Your task to perform on an android device: Open the phone app and click the voicemail tab. Image 0: 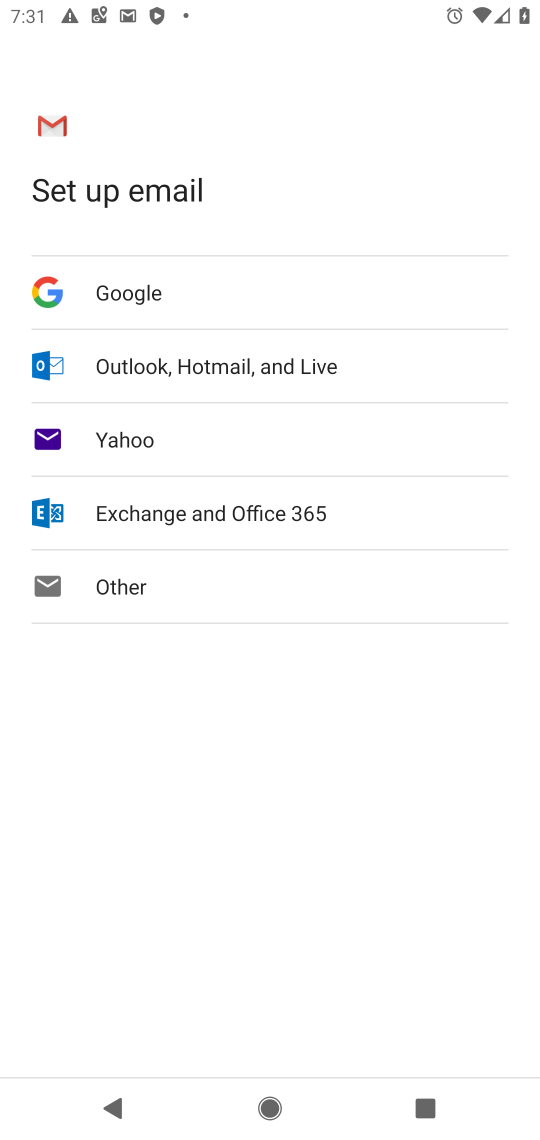
Step 0: press home button
Your task to perform on an android device: Open the phone app and click the voicemail tab. Image 1: 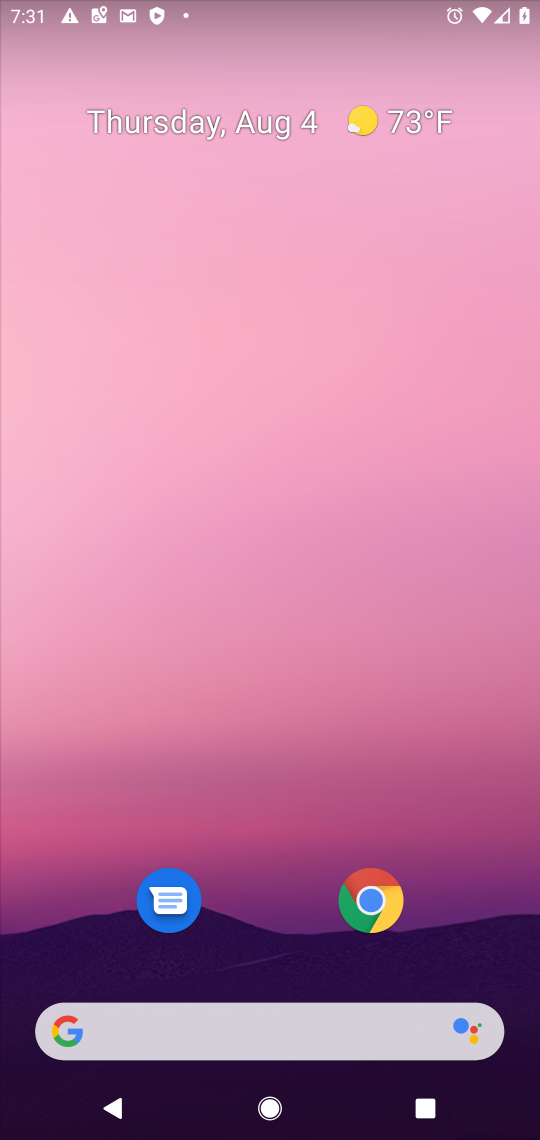
Step 1: drag from (236, 1033) to (290, 322)
Your task to perform on an android device: Open the phone app and click the voicemail tab. Image 2: 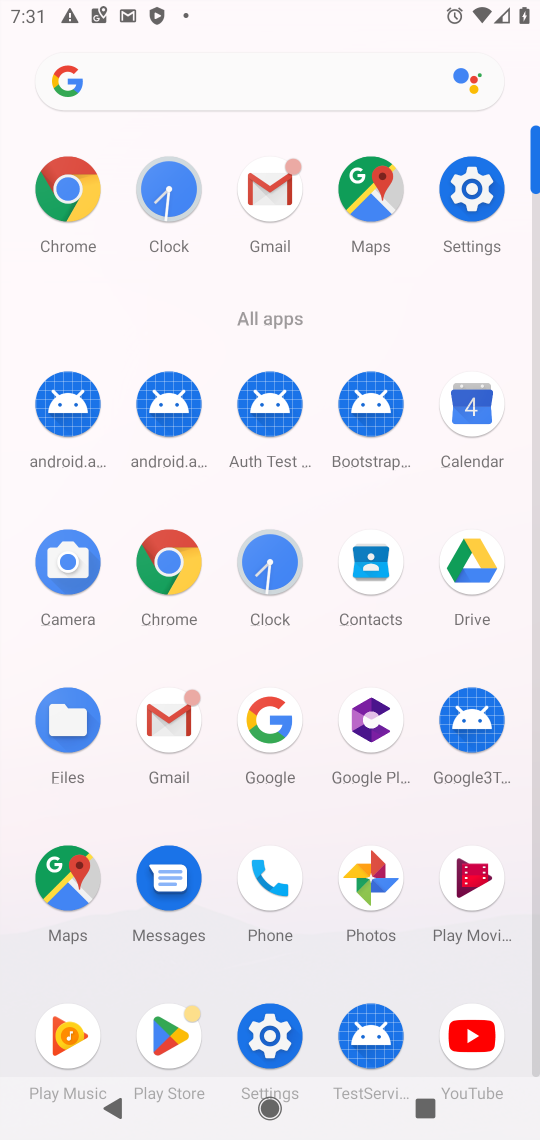
Step 2: click (261, 883)
Your task to perform on an android device: Open the phone app and click the voicemail tab. Image 3: 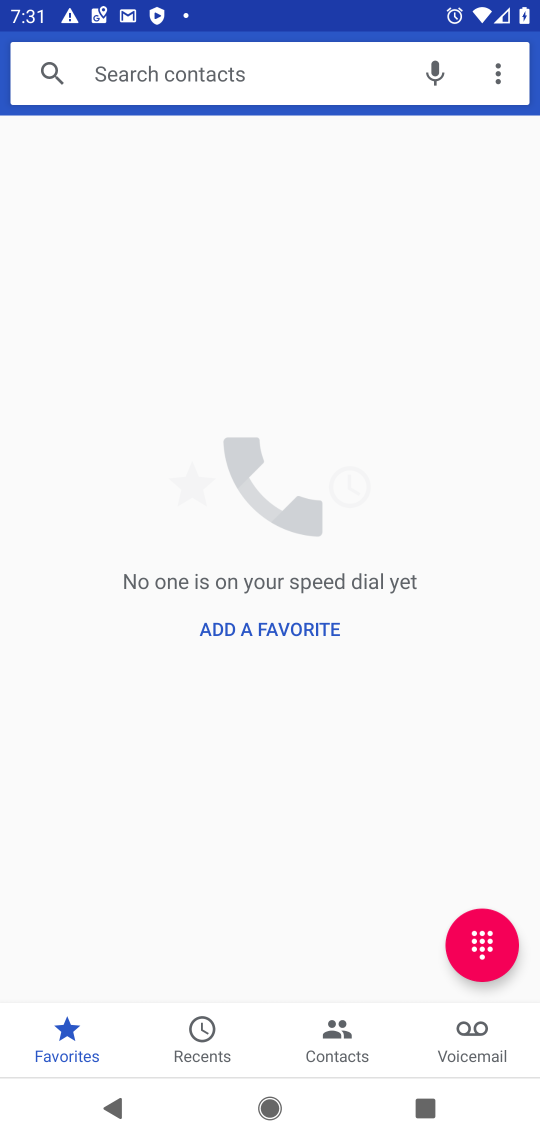
Step 3: click (472, 1026)
Your task to perform on an android device: Open the phone app and click the voicemail tab. Image 4: 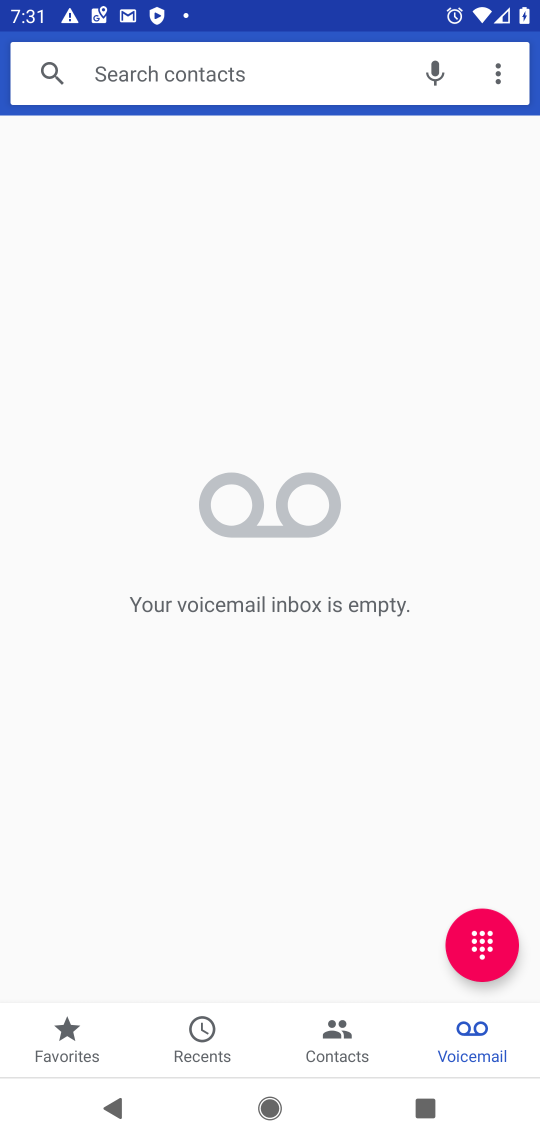
Step 4: task complete